Your task to perform on an android device: change the upload size in google photos Image 0: 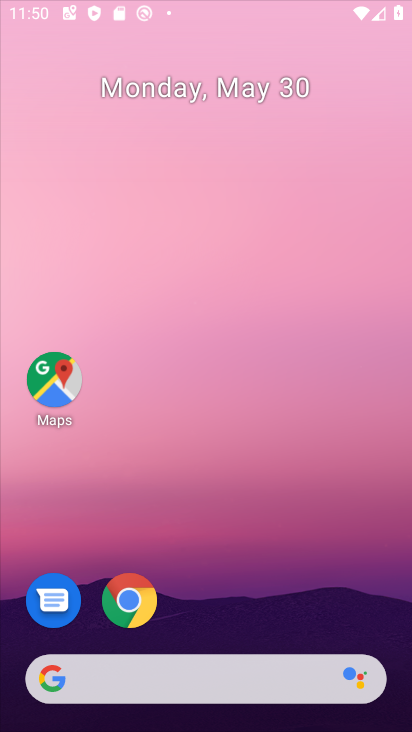
Step 0: drag from (205, 724) to (223, 111)
Your task to perform on an android device: change the upload size in google photos Image 1: 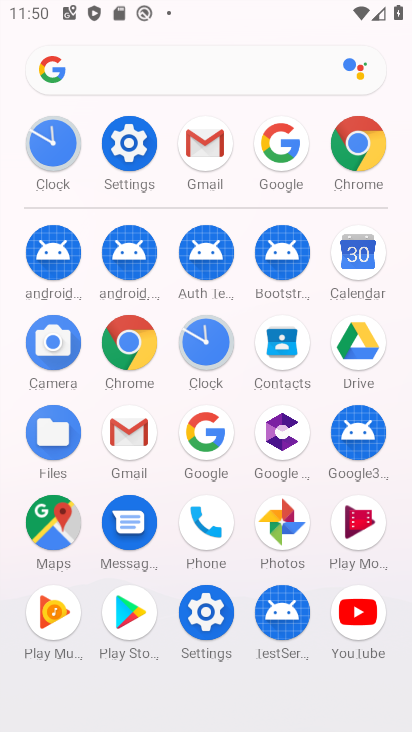
Step 1: click (280, 523)
Your task to perform on an android device: change the upload size in google photos Image 2: 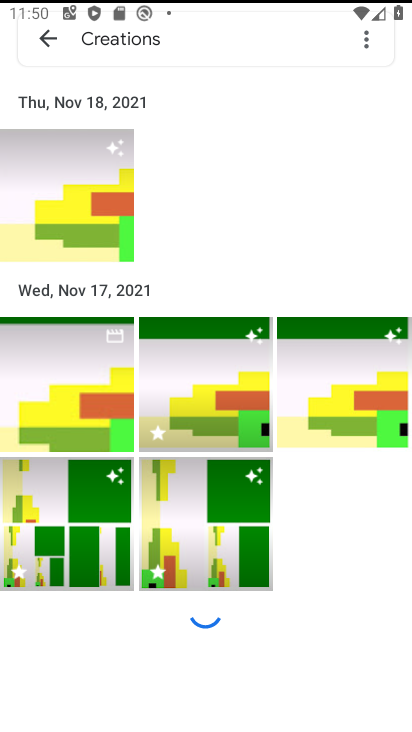
Step 2: click (50, 36)
Your task to perform on an android device: change the upload size in google photos Image 3: 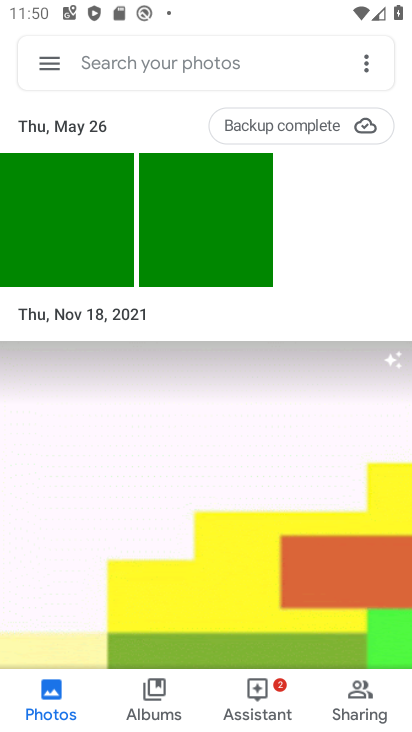
Step 3: click (53, 65)
Your task to perform on an android device: change the upload size in google photos Image 4: 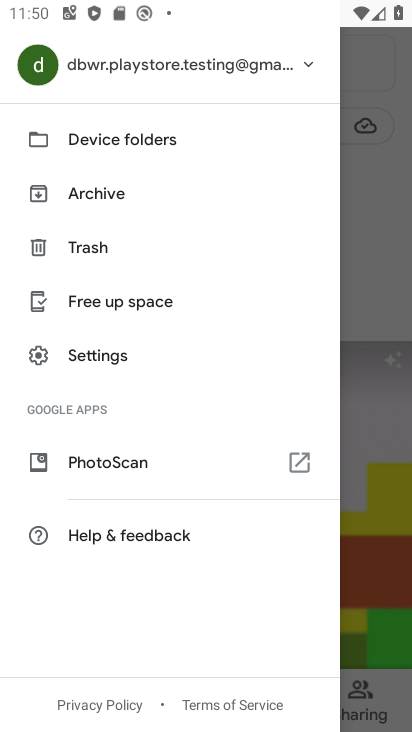
Step 4: click (101, 353)
Your task to perform on an android device: change the upload size in google photos Image 5: 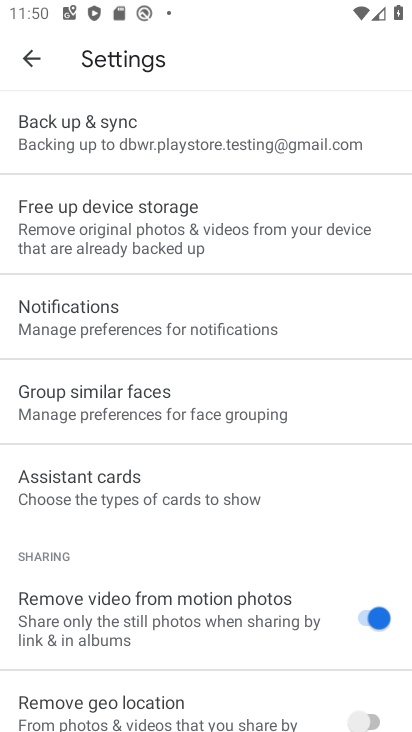
Step 5: drag from (128, 692) to (113, 214)
Your task to perform on an android device: change the upload size in google photos Image 6: 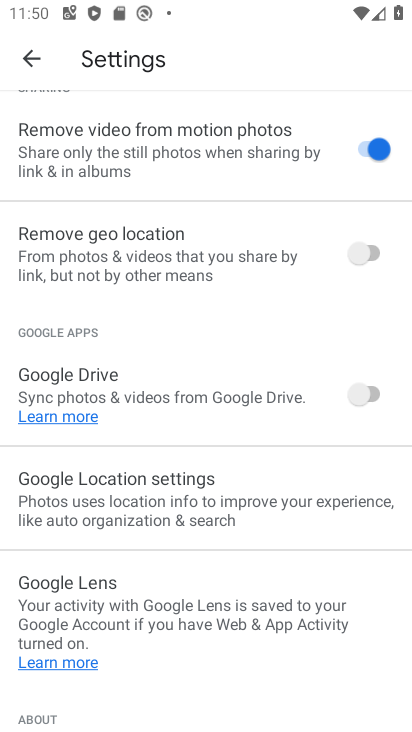
Step 6: drag from (230, 110) to (239, 645)
Your task to perform on an android device: change the upload size in google photos Image 7: 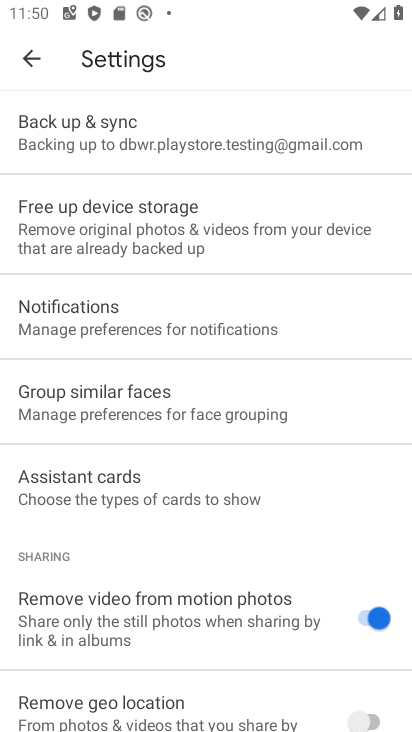
Step 7: drag from (183, 113) to (183, 211)
Your task to perform on an android device: change the upload size in google photos Image 8: 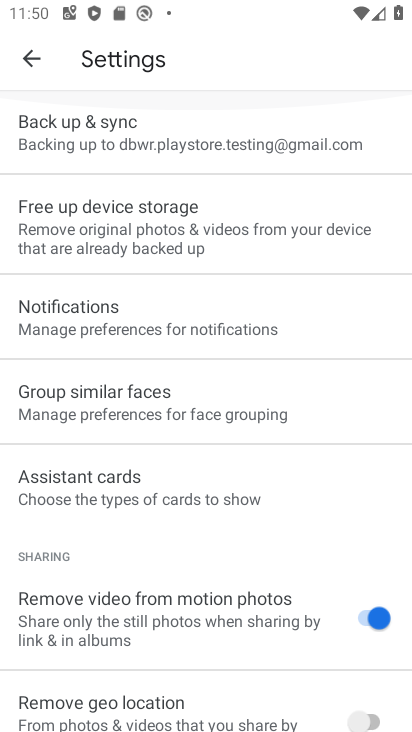
Step 8: drag from (183, 500) to (175, 555)
Your task to perform on an android device: change the upload size in google photos Image 9: 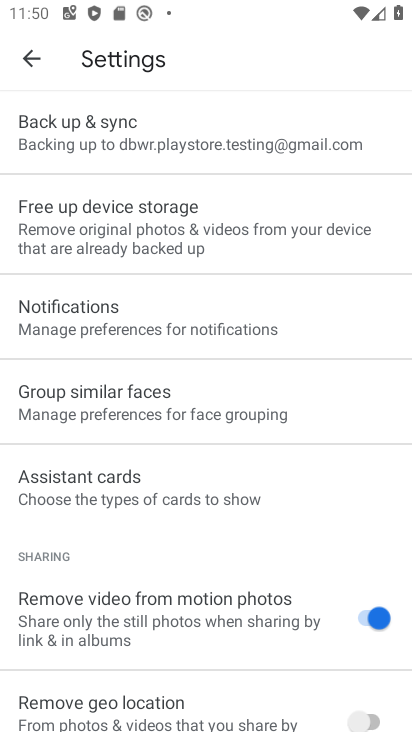
Step 9: click (69, 140)
Your task to perform on an android device: change the upload size in google photos Image 10: 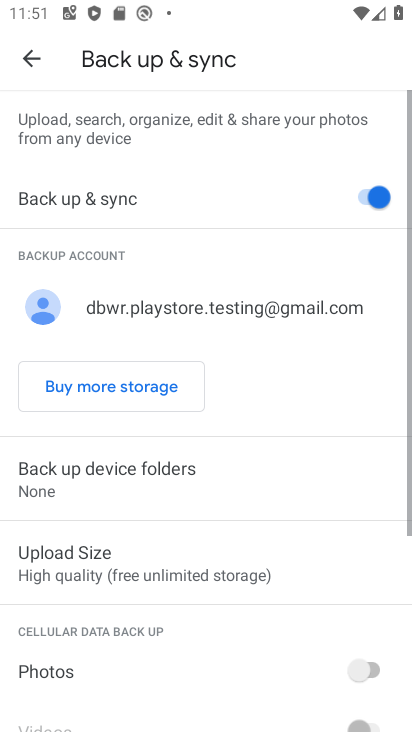
Step 10: click (100, 566)
Your task to perform on an android device: change the upload size in google photos Image 11: 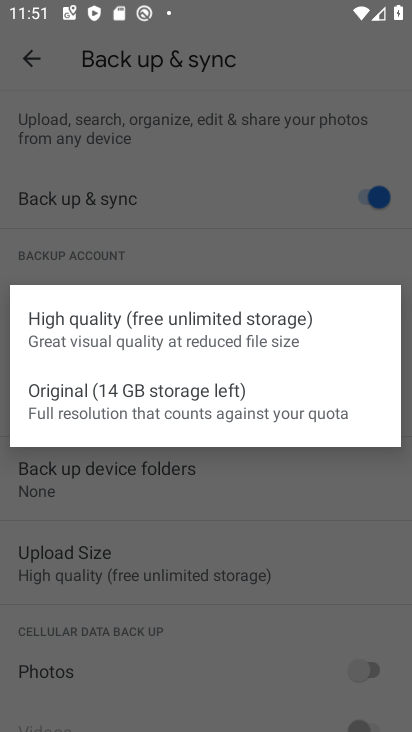
Step 11: click (106, 408)
Your task to perform on an android device: change the upload size in google photos Image 12: 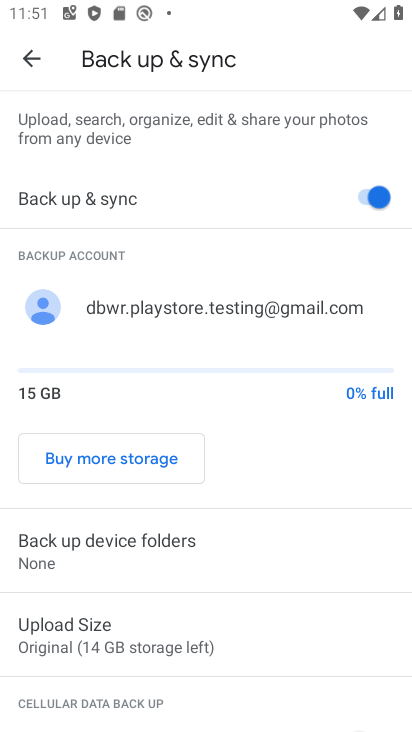
Step 12: task complete